Your task to perform on an android device: Go to internet settings Image 0: 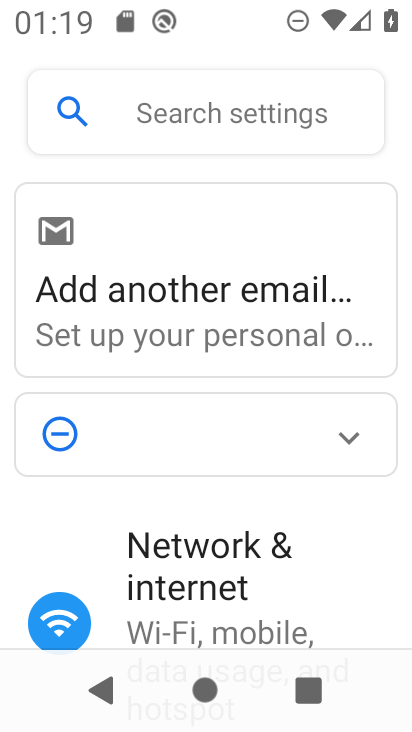
Step 0: click (240, 530)
Your task to perform on an android device: Go to internet settings Image 1: 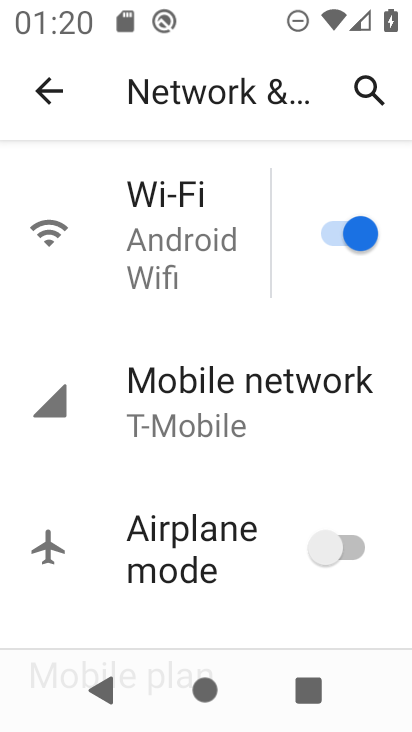
Step 1: task complete